Your task to perform on an android device: Show me popular games on the Play Store Image 0: 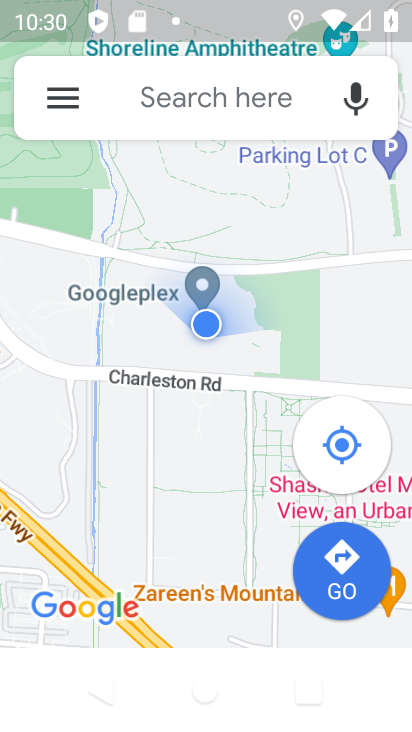
Step 0: press home button
Your task to perform on an android device: Show me popular games on the Play Store Image 1: 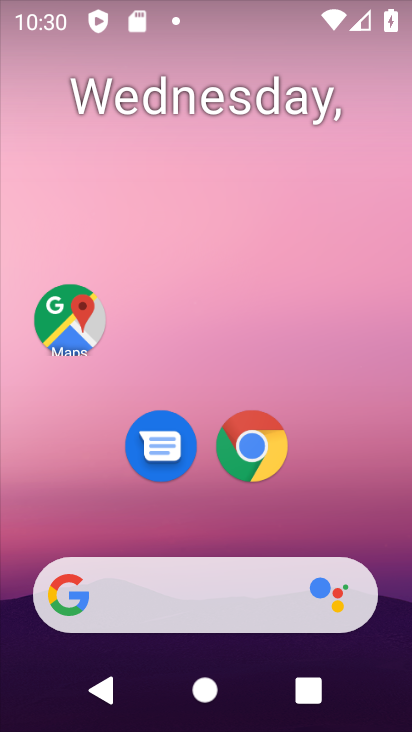
Step 1: drag from (64, 534) to (161, 116)
Your task to perform on an android device: Show me popular games on the Play Store Image 2: 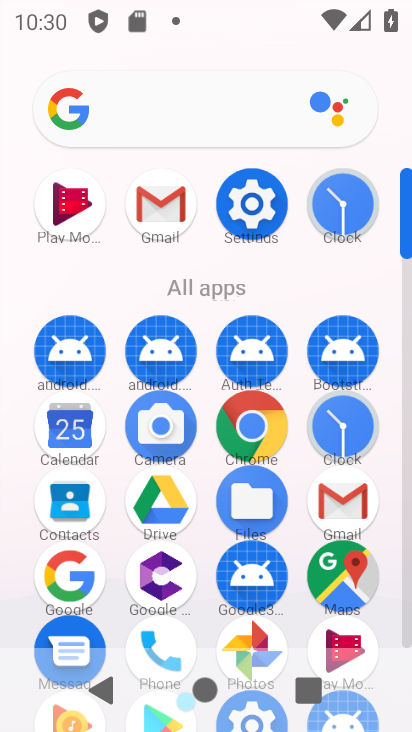
Step 2: drag from (203, 638) to (252, 416)
Your task to perform on an android device: Show me popular games on the Play Store Image 3: 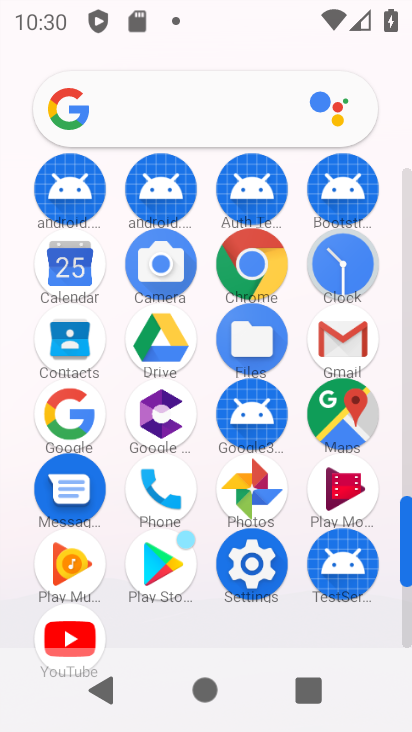
Step 3: click (175, 595)
Your task to perform on an android device: Show me popular games on the Play Store Image 4: 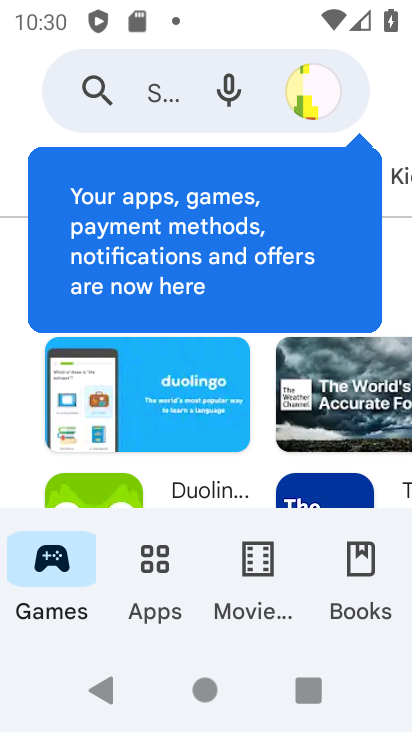
Step 4: drag from (200, 476) to (407, 47)
Your task to perform on an android device: Show me popular games on the Play Store Image 5: 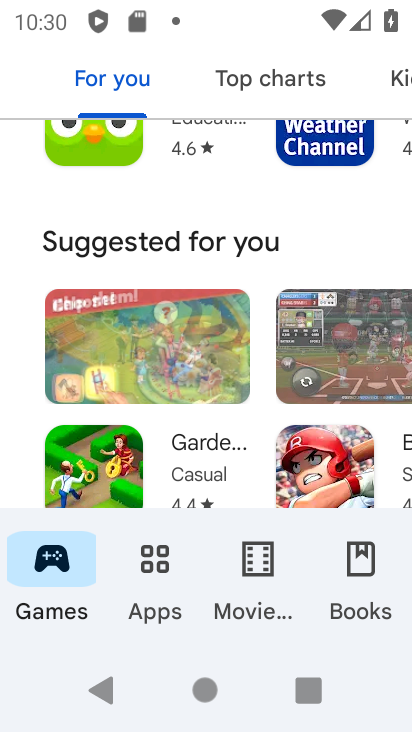
Step 5: drag from (264, 463) to (401, 26)
Your task to perform on an android device: Show me popular games on the Play Store Image 6: 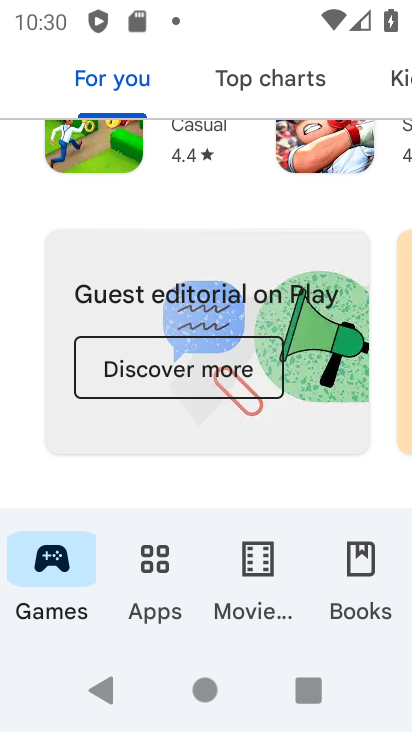
Step 6: drag from (240, 446) to (398, 295)
Your task to perform on an android device: Show me popular games on the Play Store Image 7: 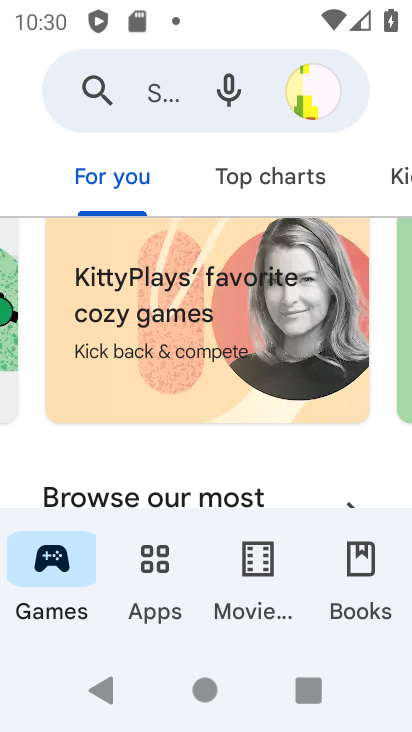
Step 7: drag from (337, 259) to (408, 373)
Your task to perform on an android device: Show me popular games on the Play Store Image 8: 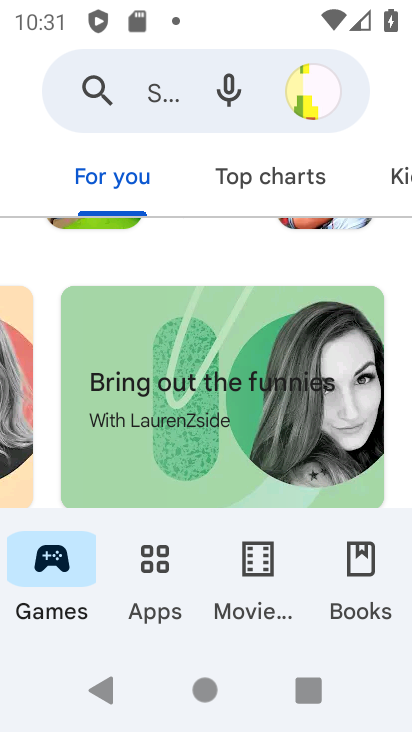
Step 8: drag from (254, 451) to (402, 47)
Your task to perform on an android device: Show me popular games on the Play Store Image 9: 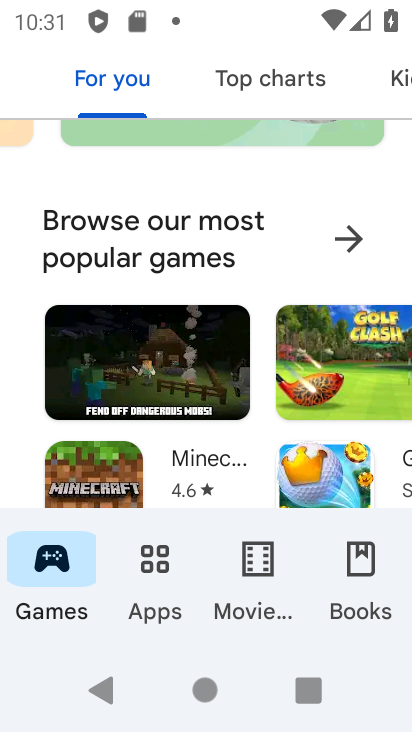
Step 9: click (346, 247)
Your task to perform on an android device: Show me popular games on the Play Store Image 10: 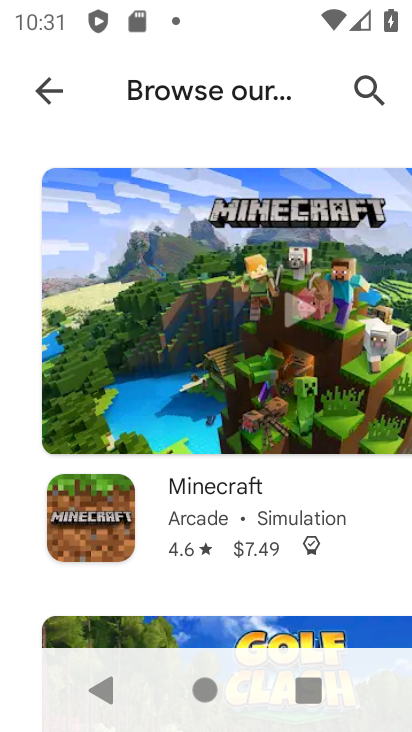
Step 10: task complete